Your task to perform on an android device: open chrome and create a bookmark for the current page Image 0: 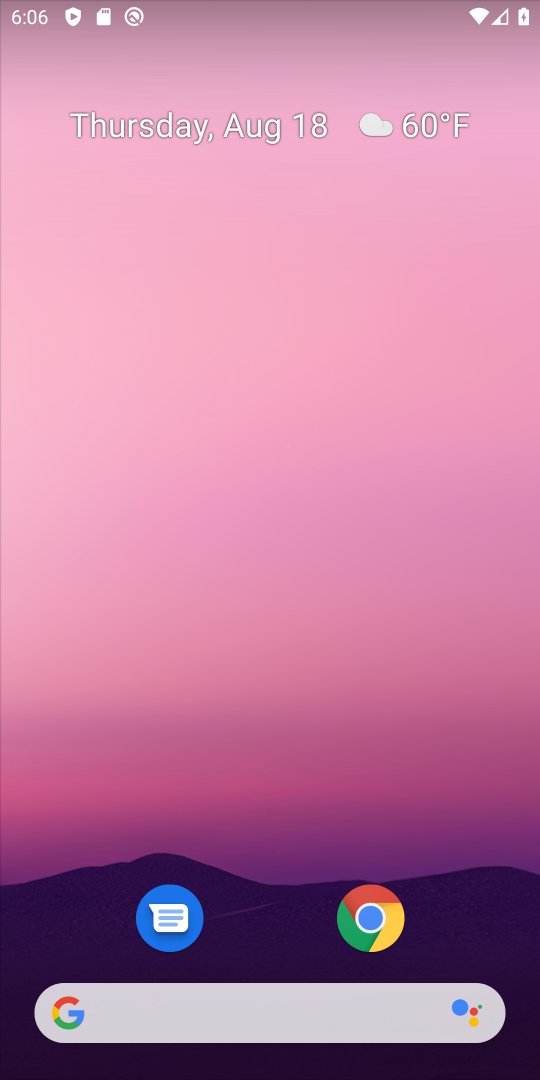
Step 0: click (374, 909)
Your task to perform on an android device: open chrome and create a bookmark for the current page Image 1: 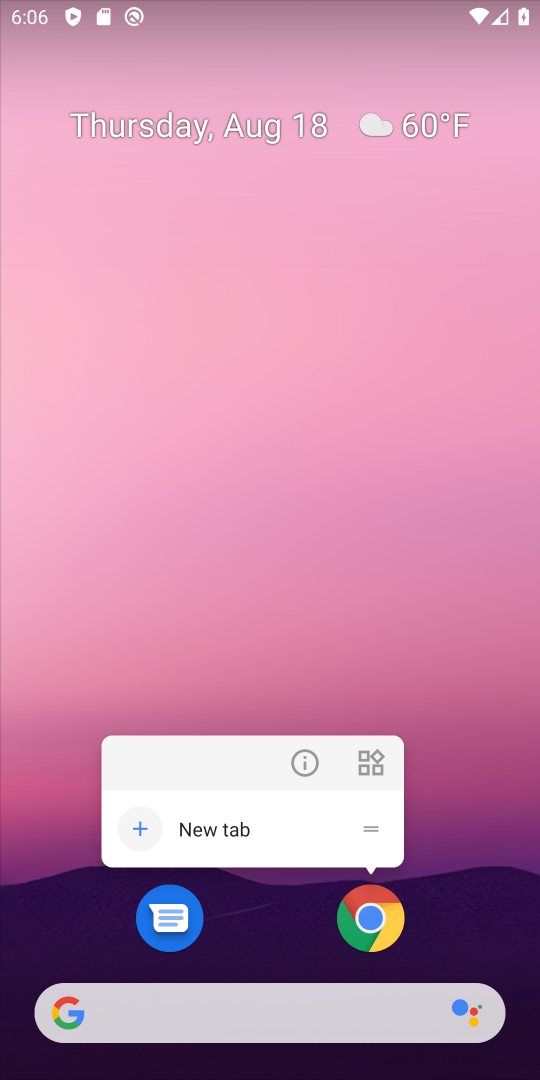
Step 1: click (374, 909)
Your task to perform on an android device: open chrome and create a bookmark for the current page Image 2: 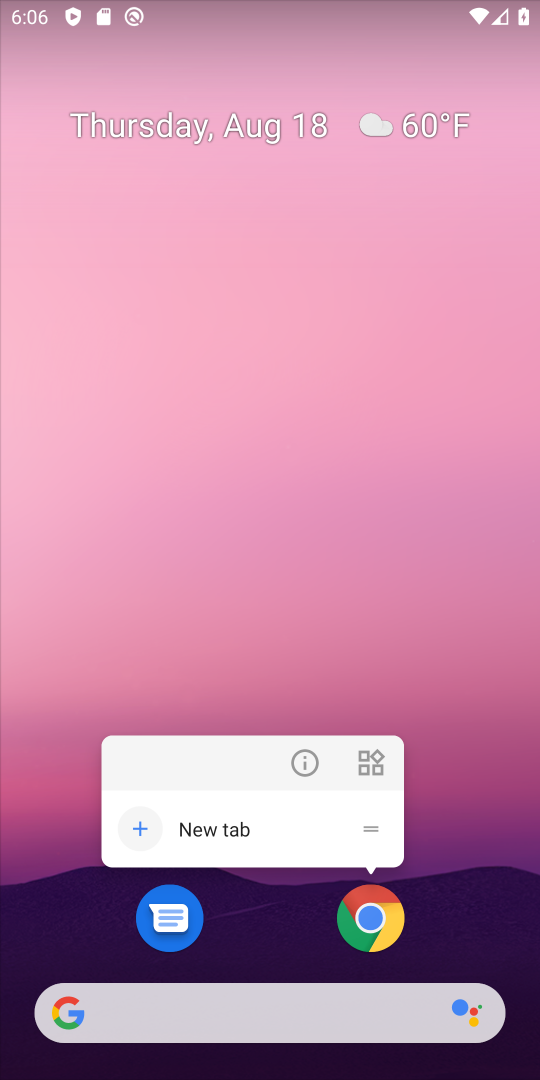
Step 2: click (368, 926)
Your task to perform on an android device: open chrome and create a bookmark for the current page Image 3: 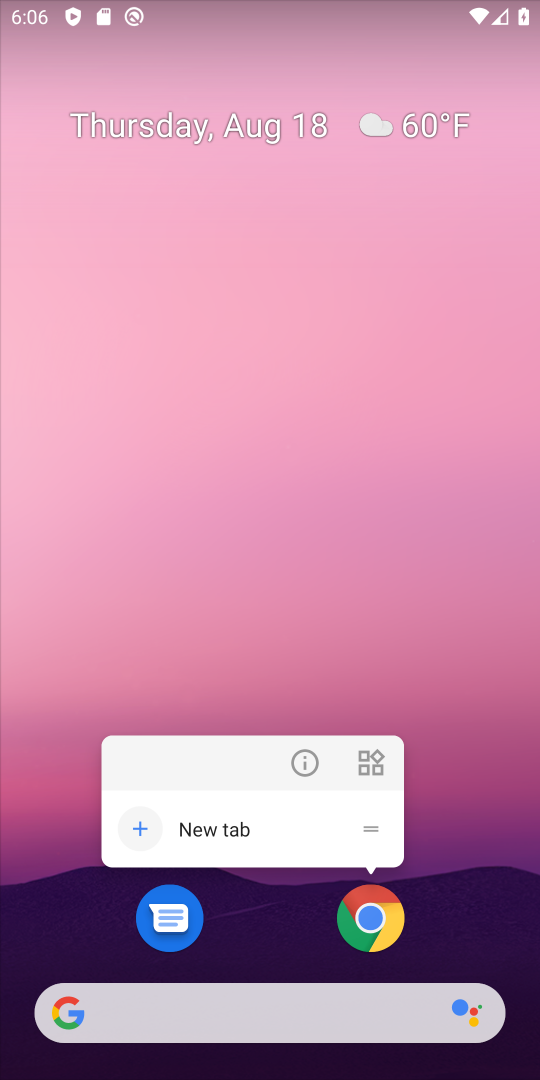
Step 3: click (368, 926)
Your task to perform on an android device: open chrome and create a bookmark for the current page Image 4: 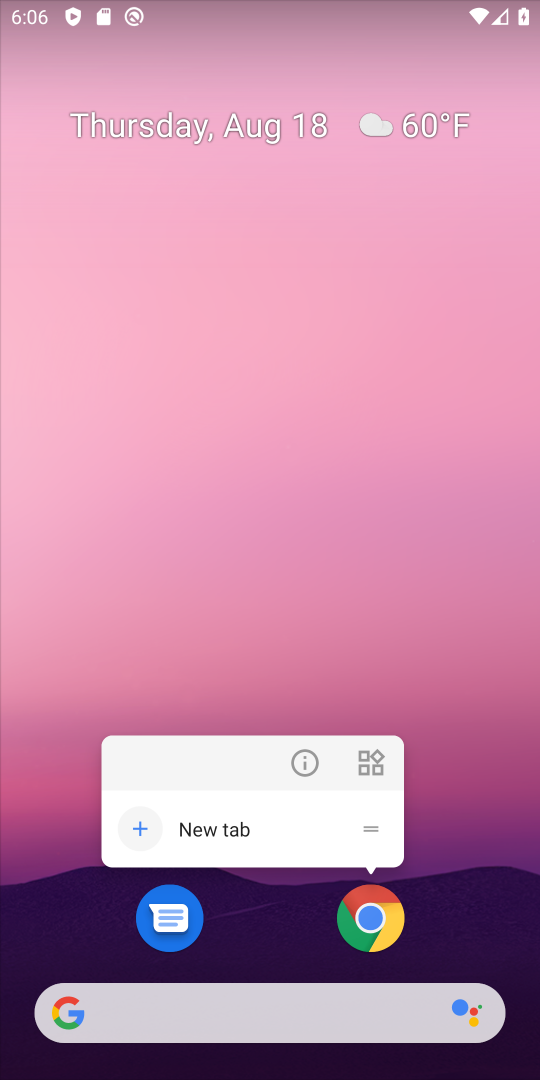
Step 4: click (368, 926)
Your task to perform on an android device: open chrome and create a bookmark for the current page Image 5: 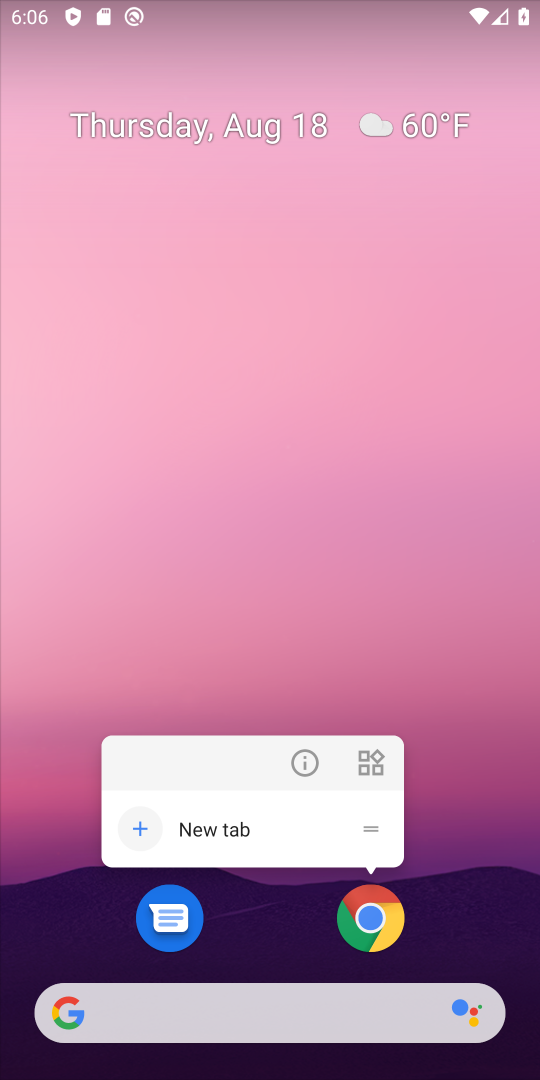
Step 5: click (393, 954)
Your task to perform on an android device: open chrome and create a bookmark for the current page Image 6: 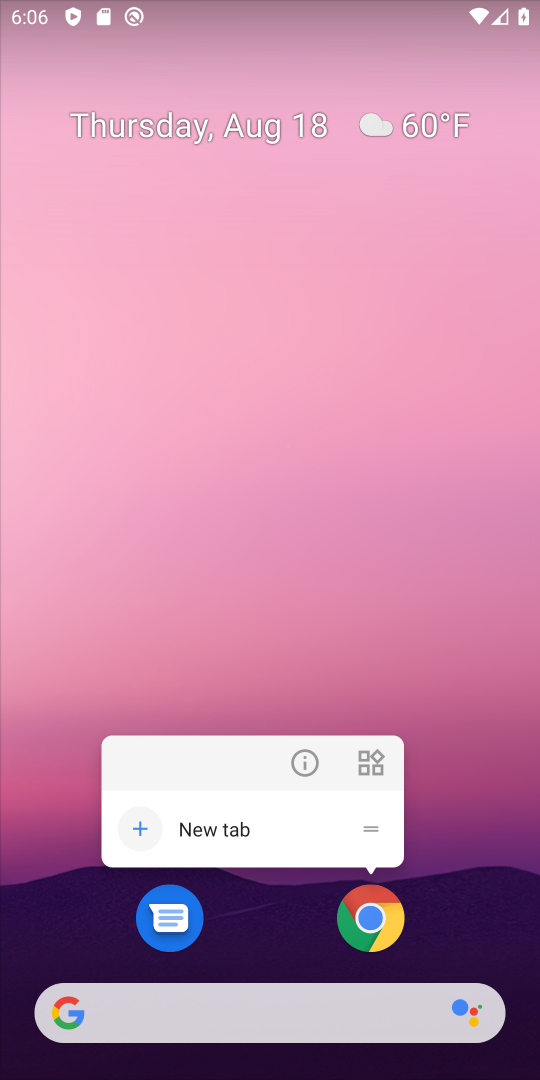
Step 6: click (363, 923)
Your task to perform on an android device: open chrome and create a bookmark for the current page Image 7: 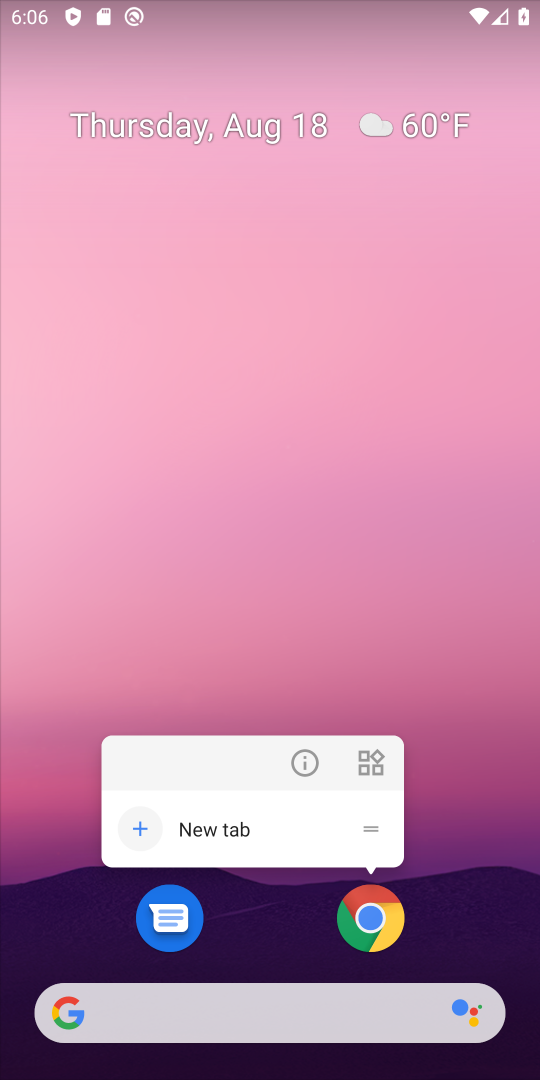
Step 7: click (363, 923)
Your task to perform on an android device: open chrome and create a bookmark for the current page Image 8: 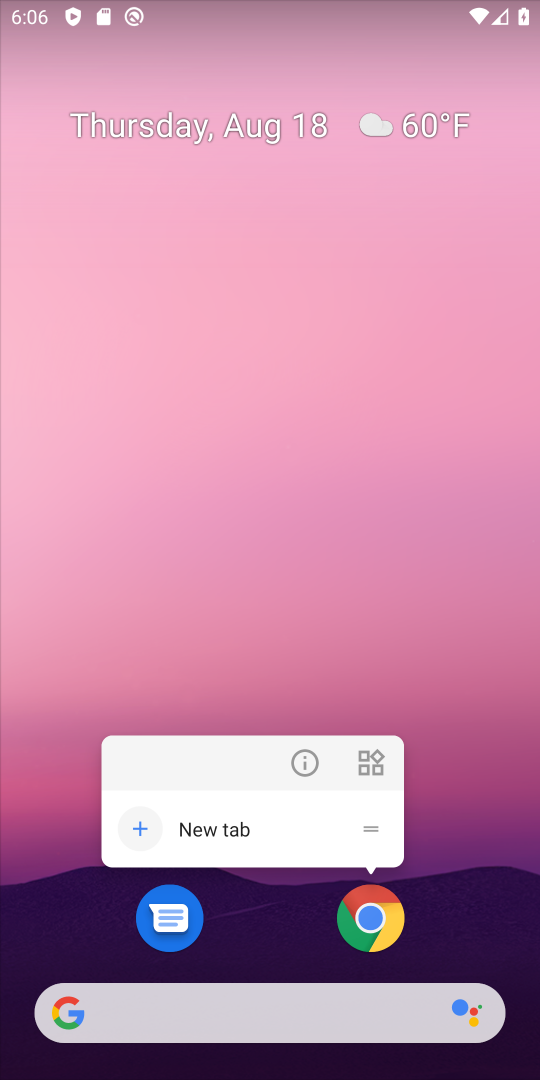
Step 8: click (245, 496)
Your task to perform on an android device: open chrome and create a bookmark for the current page Image 9: 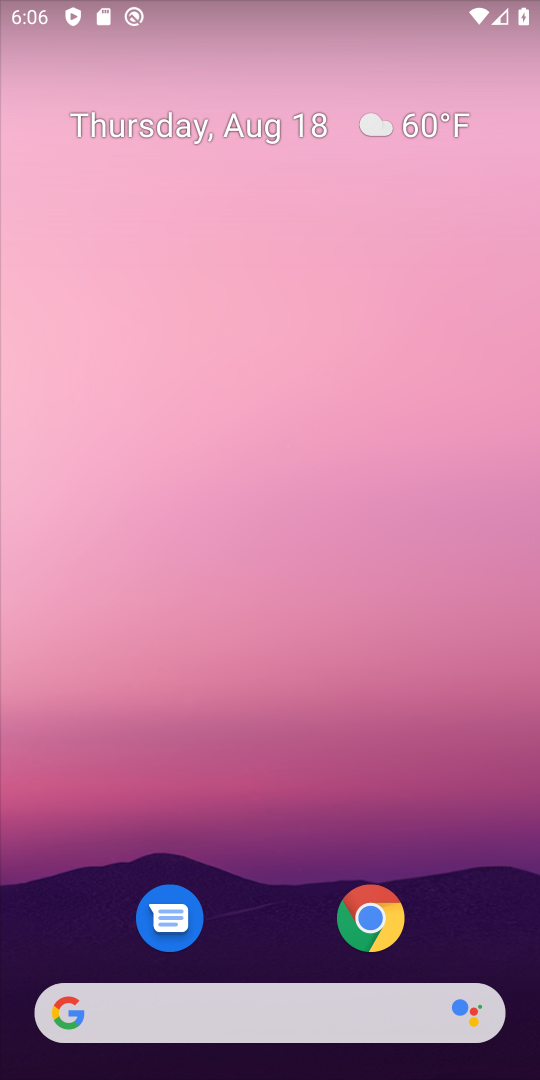
Step 9: click (368, 916)
Your task to perform on an android device: open chrome and create a bookmark for the current page Image 10: 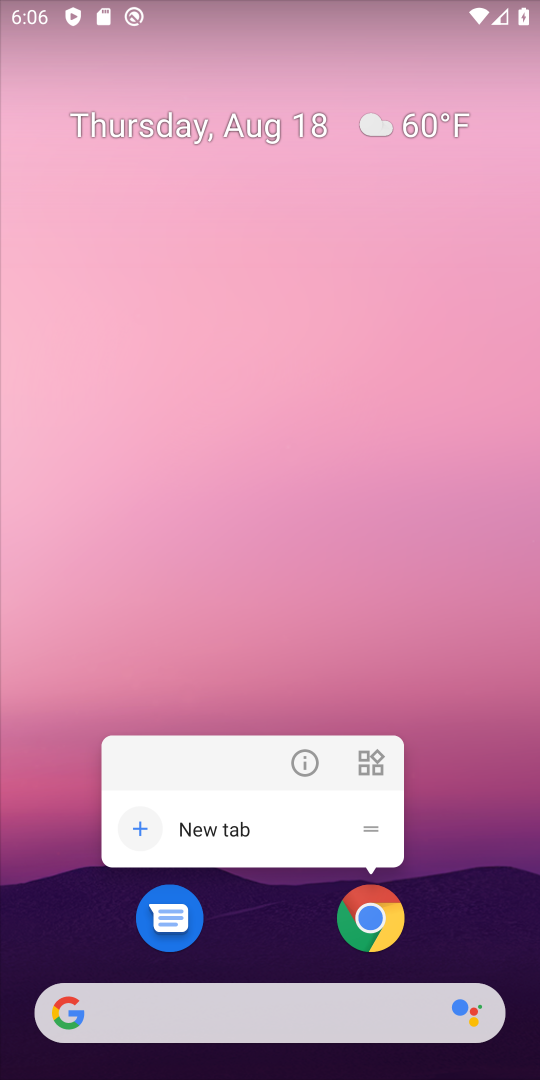
Step 10: click (368, 916)
Your task to perform on an android device: open chrome and create a bookmark for the current page Image 11: 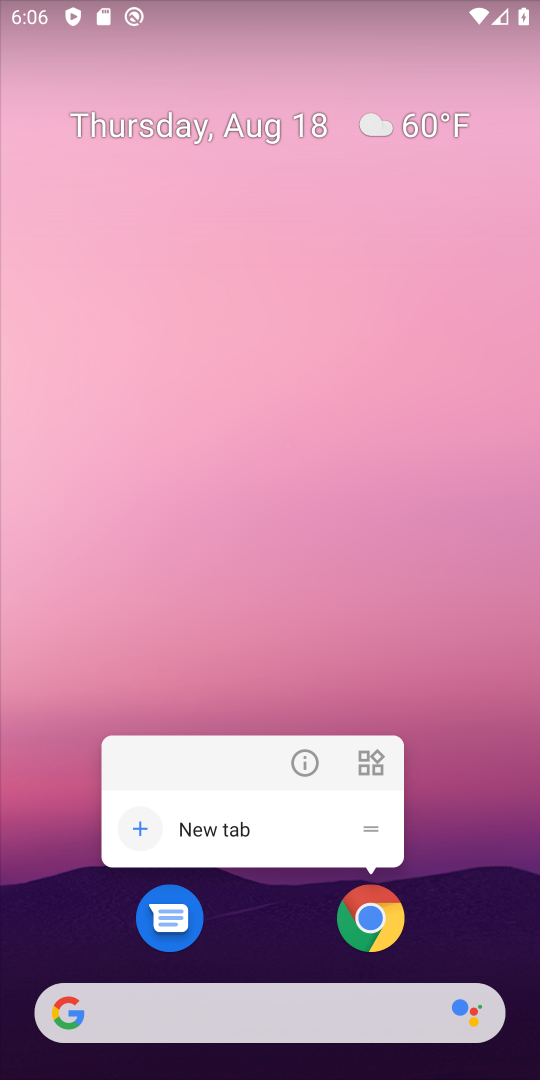
Step 11: click (368, 916)
Your task to perform on an android device: open chrome and create a bookmark for the current page Image 12: 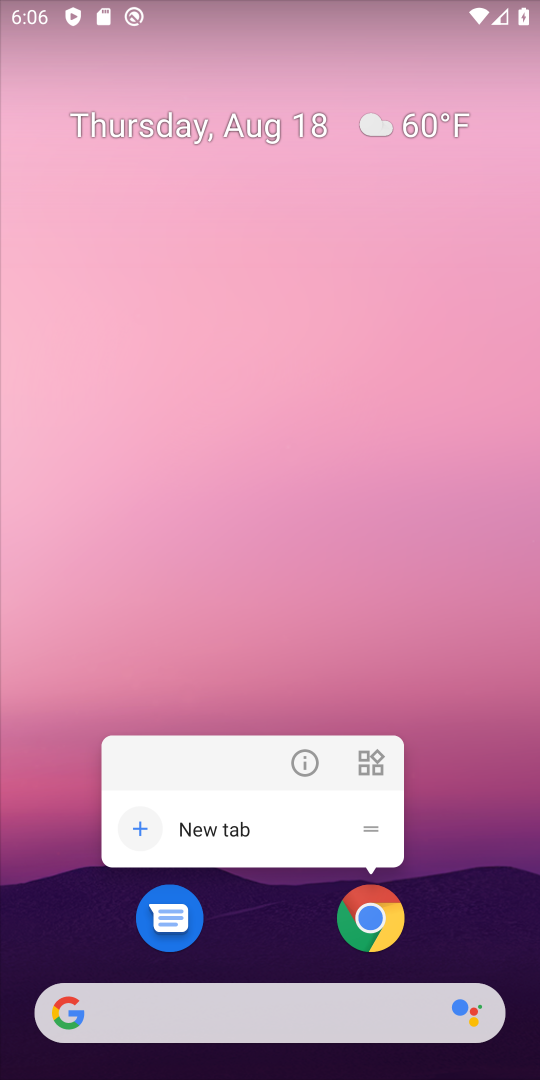
Step 12: click (368, 916)
Your task to perform on an android device: open chrome and create a bookmark for the current page Image 13: 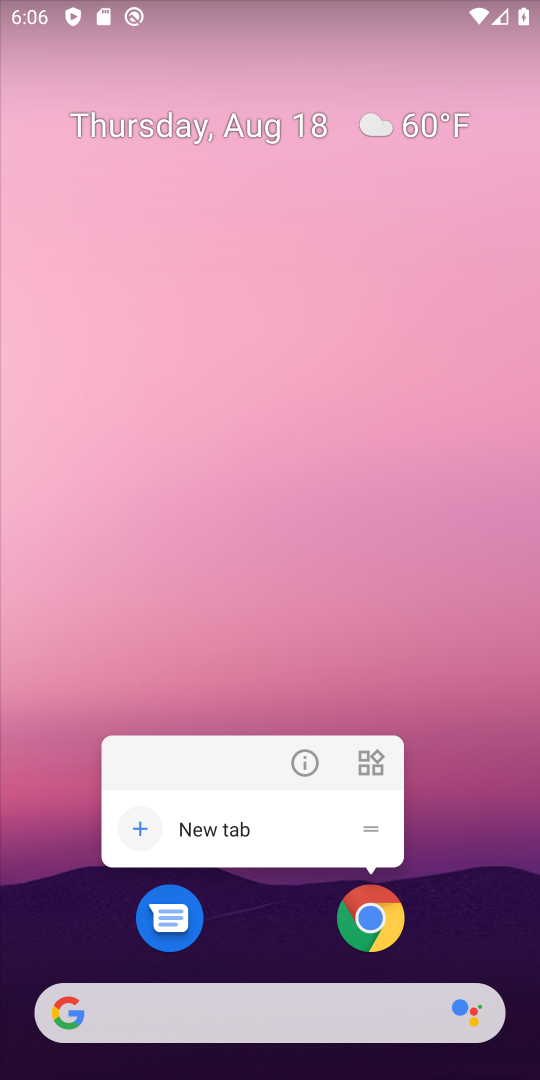
Step 13: click (376, 921)
Your task to perform on an android device: open chrome and create a bookmark for the current page Image 14: 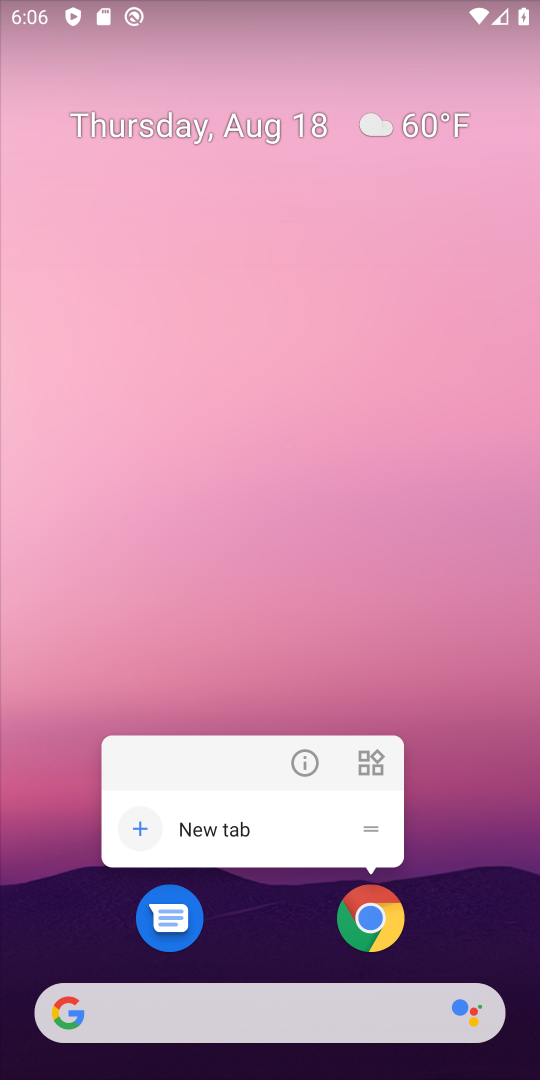
Step 14: click (376, 921)
Your task to perform on an android device: open chrome and create a bookmark for the current page Image 15: 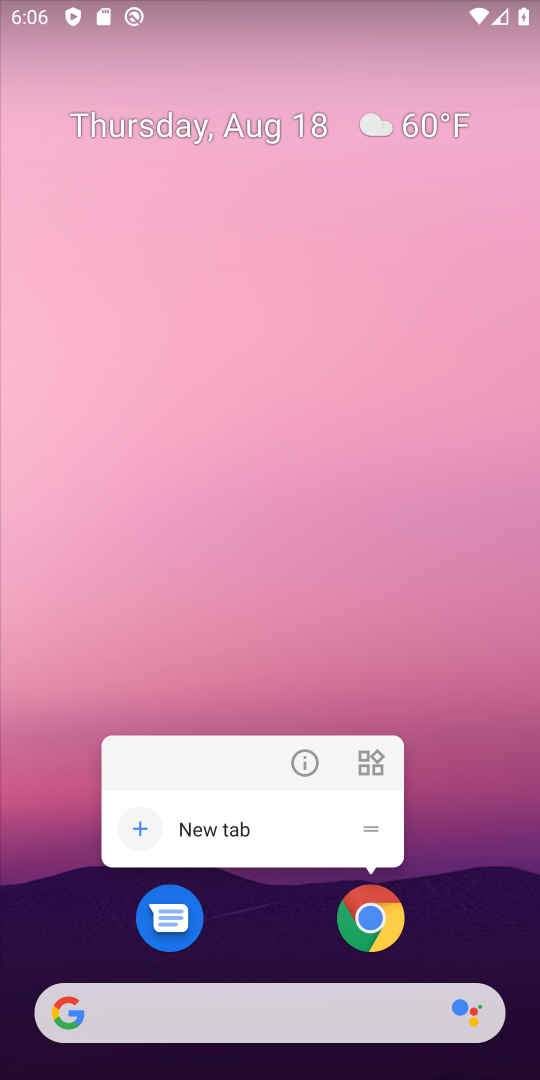
Step 15: click (376, 921)
Your task to perform on an android device: open chrome and create a bookmark for the current page Image 16: 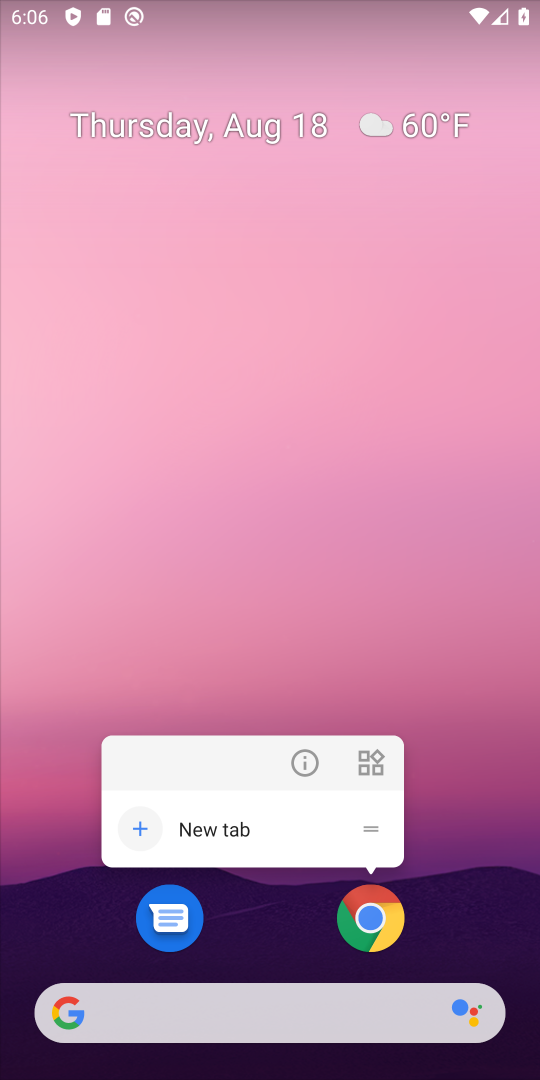
Step 16: click (368, 930)
Your task to perform on an android device: open chrome and create a bookmark for the current page Image 17: 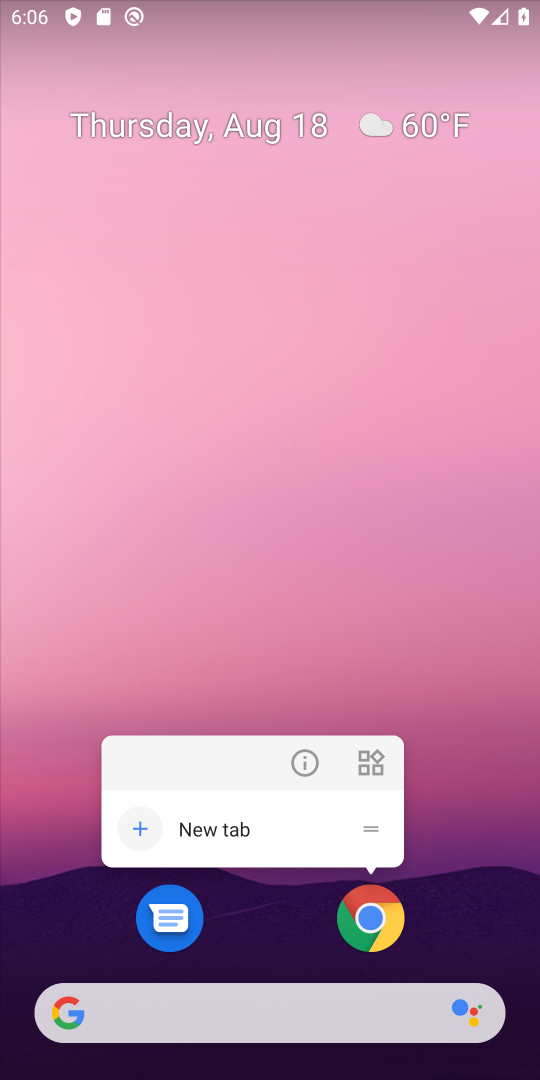
Step 17: click (368, 930)
Your task to perform on an android device: open chrome and create a bookmark for the current page Image 18: 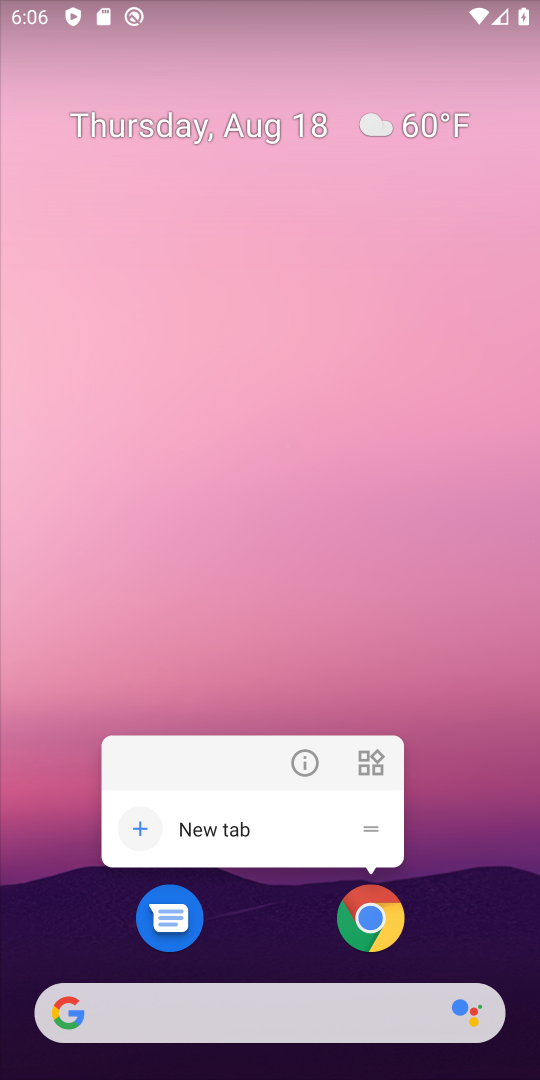
Step 18: click (364, 909)
Your task to perform on an android device: open chrome and create a bookmark for the current page Image 19: 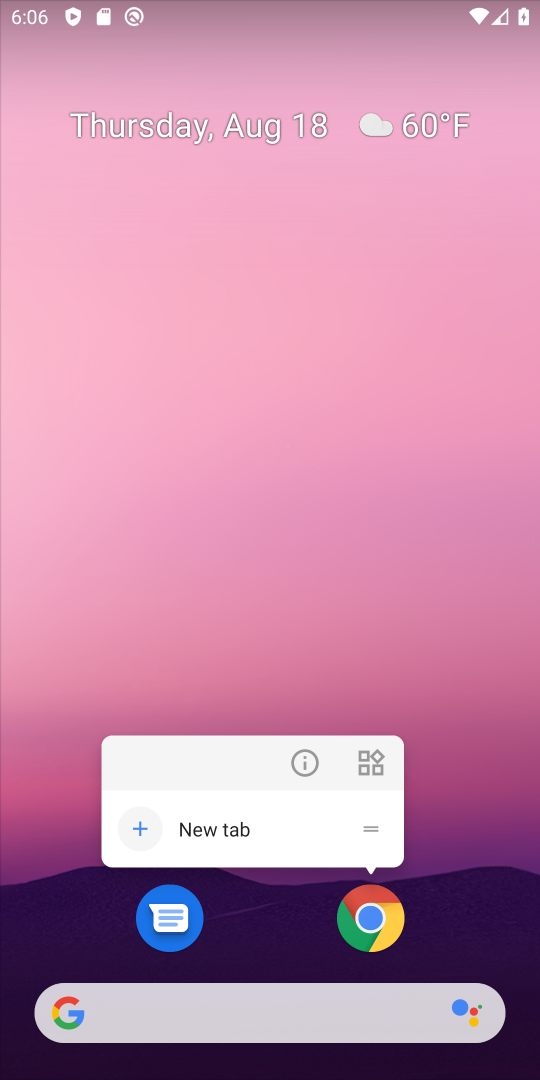
Step 19: click (364, 909)
Your task to perform on an android device: open chrome and create a bookmark for the current page Image 20: 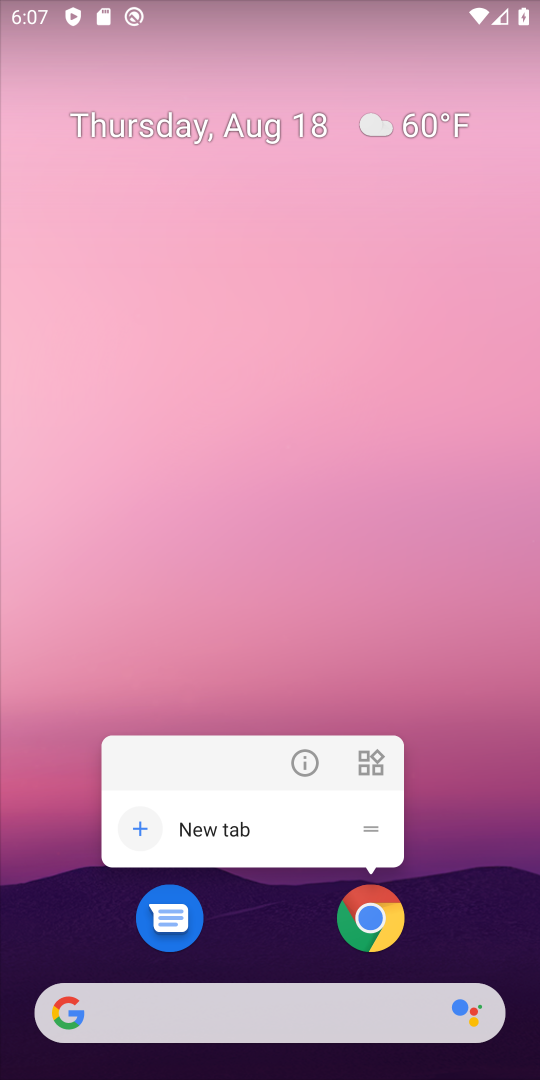
Step 20: click (371, 923)
Your task to perform on an android device: open chrome and create a bookmark for the current page Image 21: 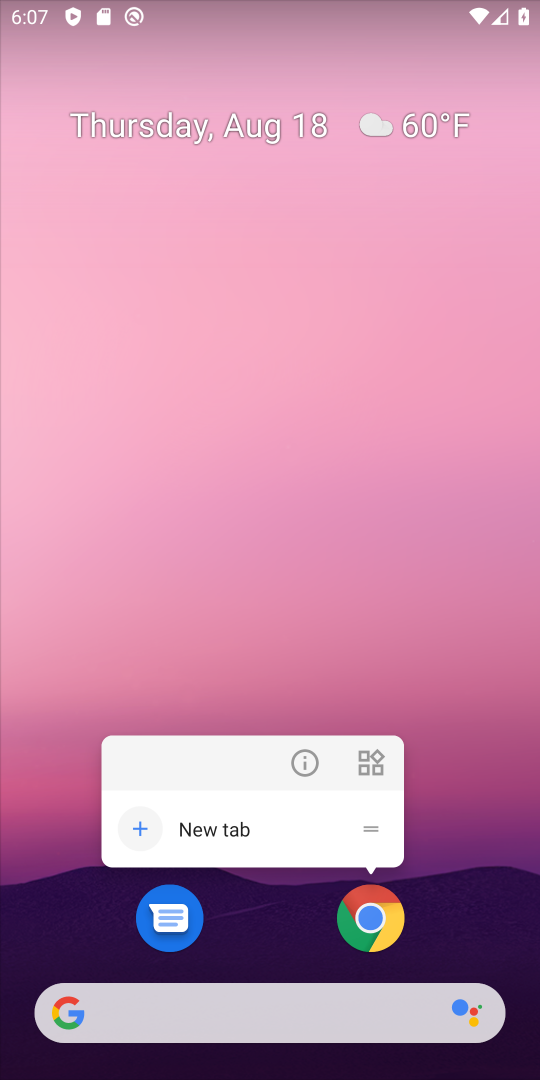
Step 21: click (362, 905)
Your task to perform on an android device: open chrome and create a bookmark for the current page Image 22: 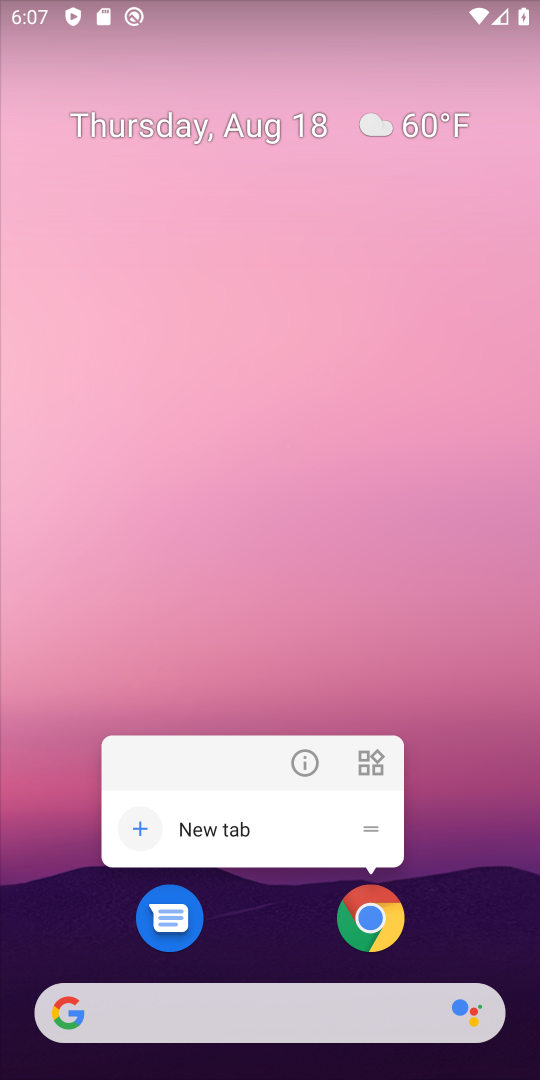
Step 22: click (360, 923)
Your task to perform on an android device: open chrome and create a bookmark for the current page Image 23: 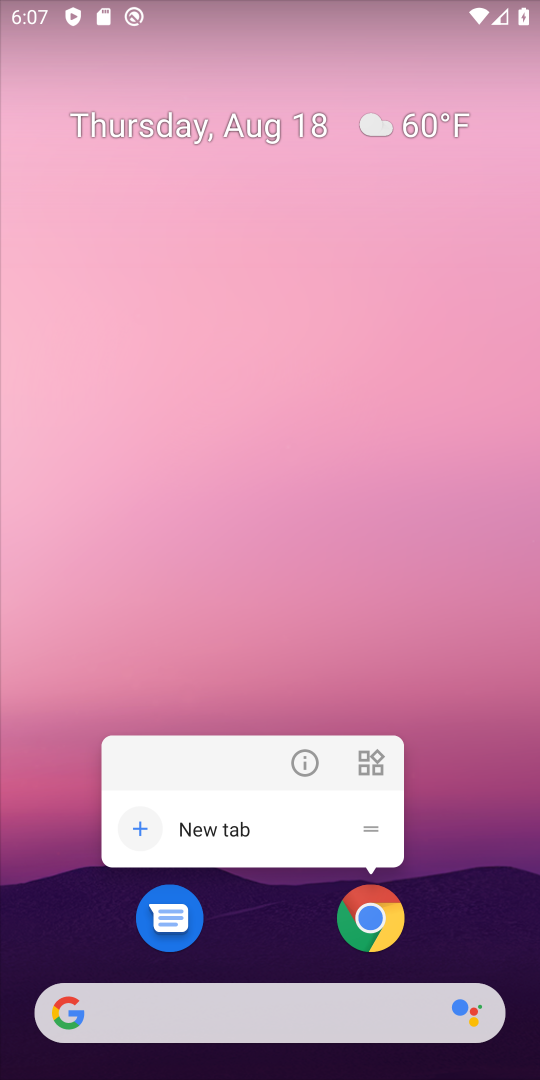
Step 23: click (360, 923)
Your task to perform on an android device: open chrome and create a bookmark for the current page Image 24: 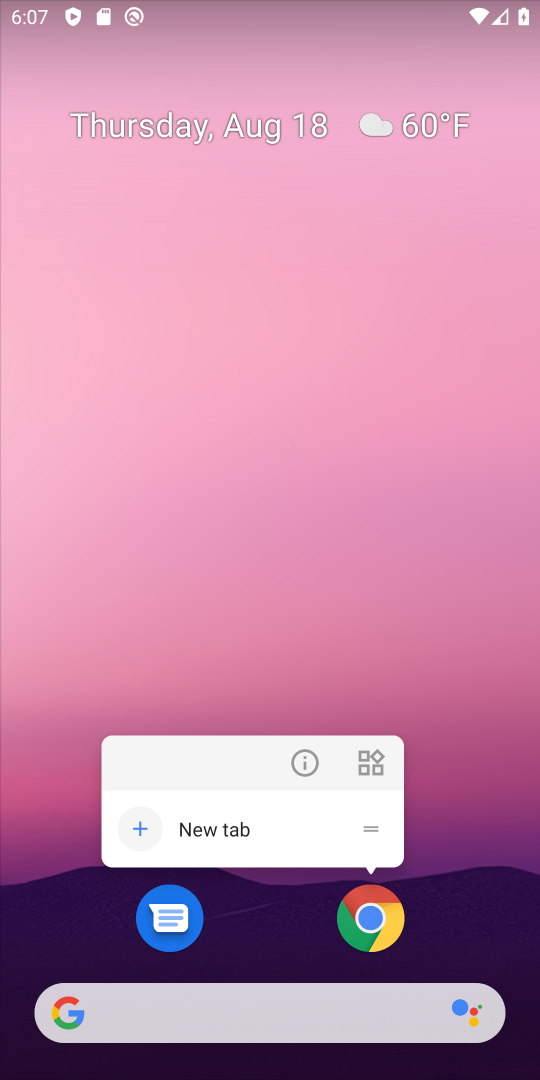
Step 24: click (357, 916)
Your task to perform on an android device: open chrome and create a bookmark for the current page Image 25: 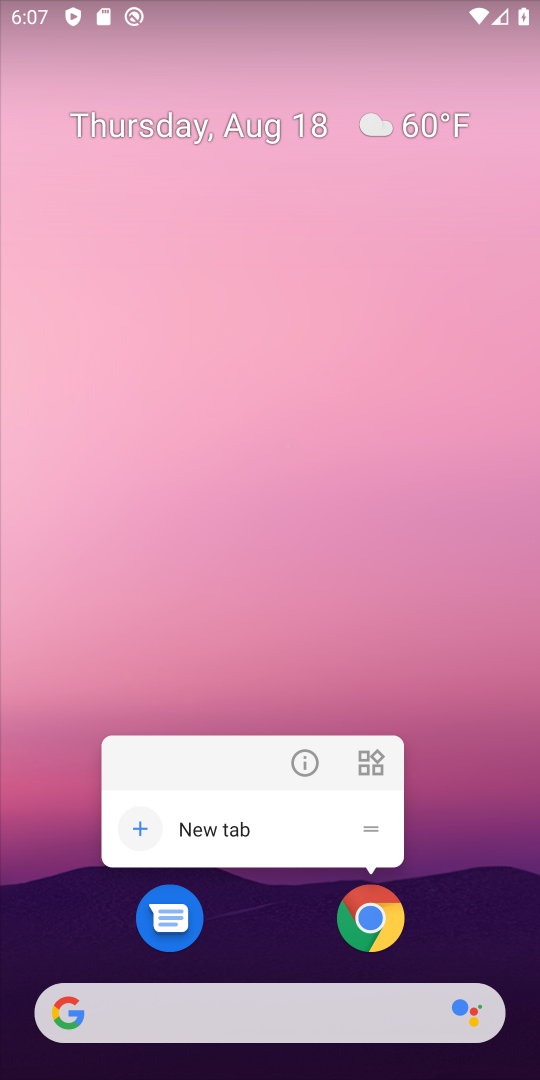
Step 25: click (368, 924)
Your task to perform on an android device: open chrome and create a bookmark for the current page Image 26: 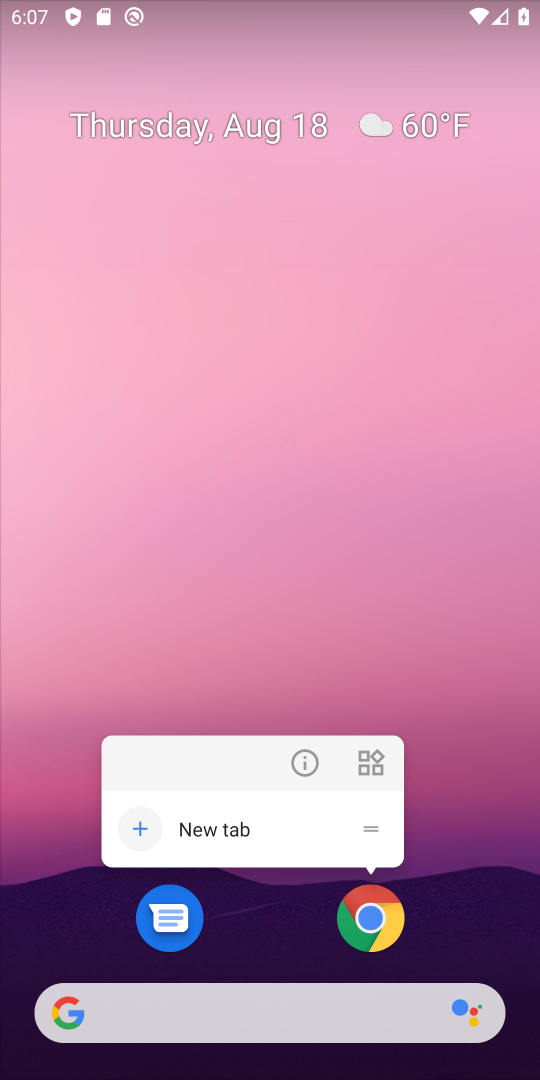
Step 26: click (362, 910)
Your task to perform on an android device: open chrome and create a bookmark for the current page Image 27: 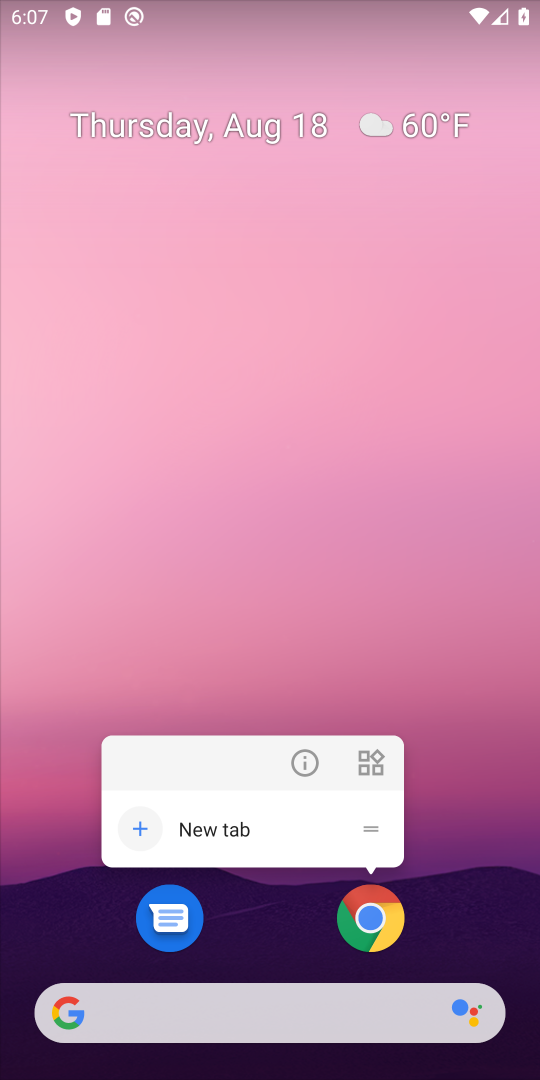
Step 27: click (371, 917)
Your task to perform on an android device: open chrome and create a bookmark for the current page Image 28: 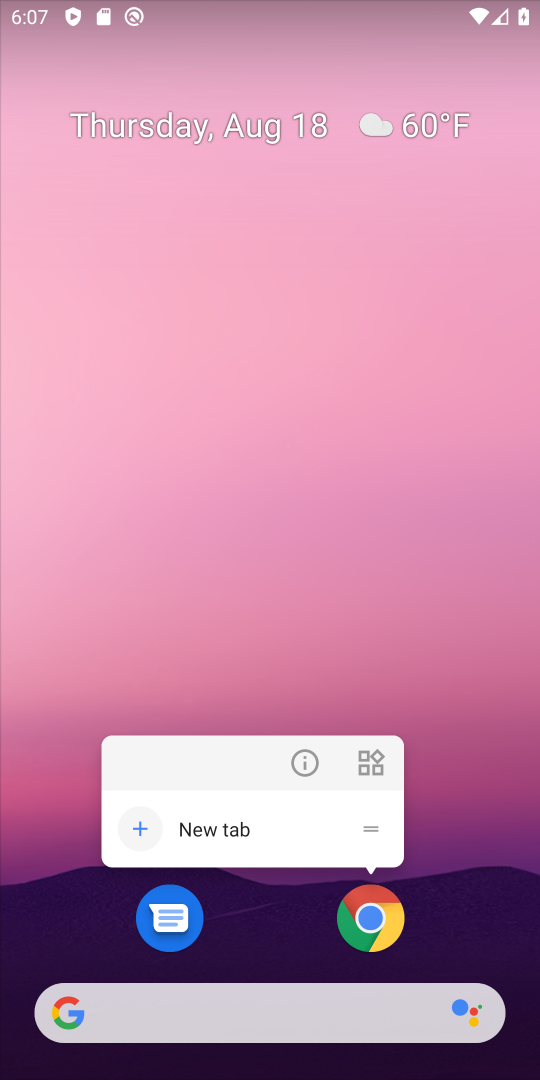
Step 28: click (353, 922)
Your task to perform on an android device: open chrome and create a bookmark for the current page Image 29: 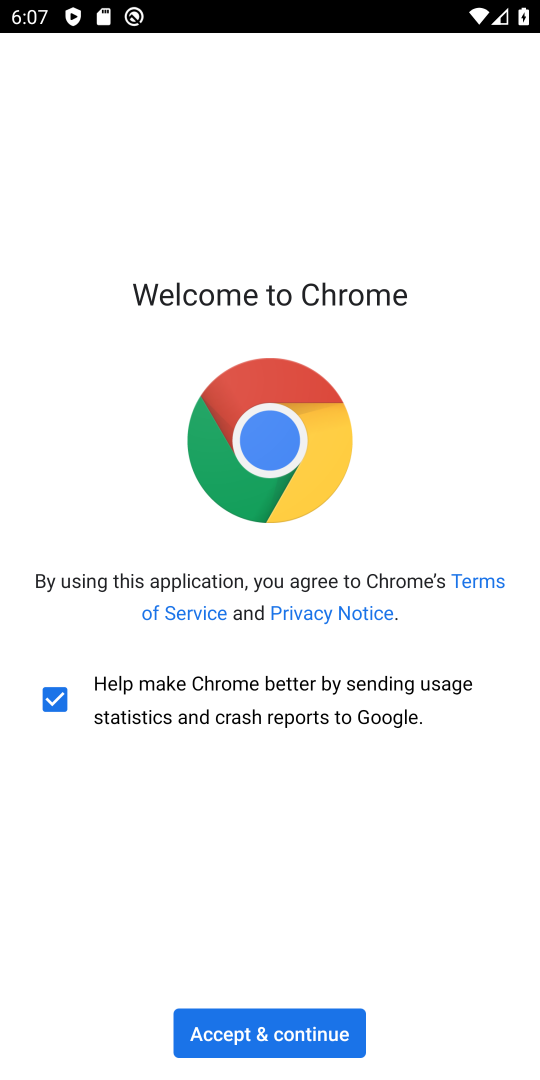
Step 29: click (259, 1052)
Your task to perform on an android device: open chrome and create a bookmark for the current page Image 30: 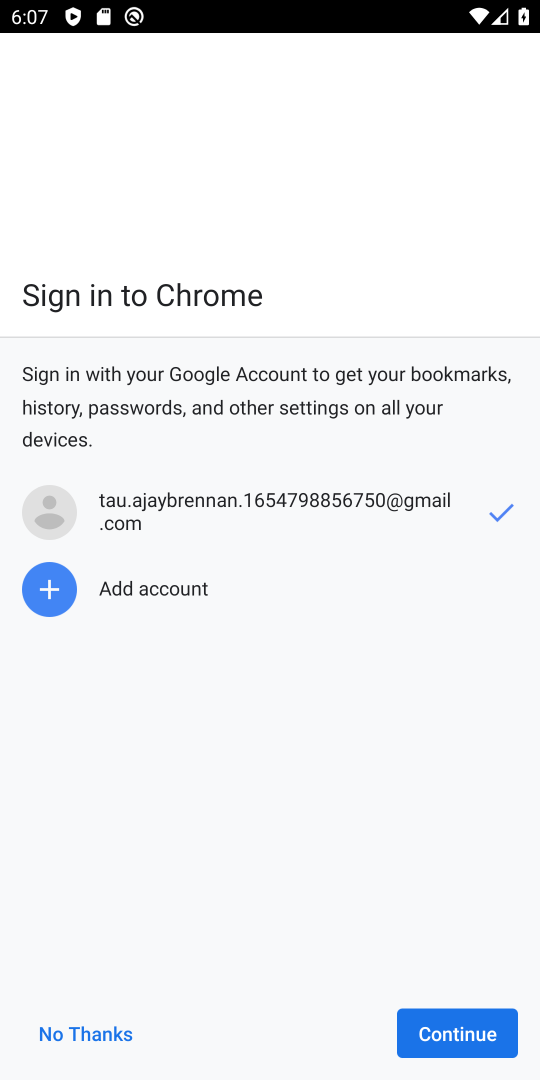
Step 30: click (434, 1052)
Your task to perform on an android device: open chrome and create a bookmark for the current page Image 31: 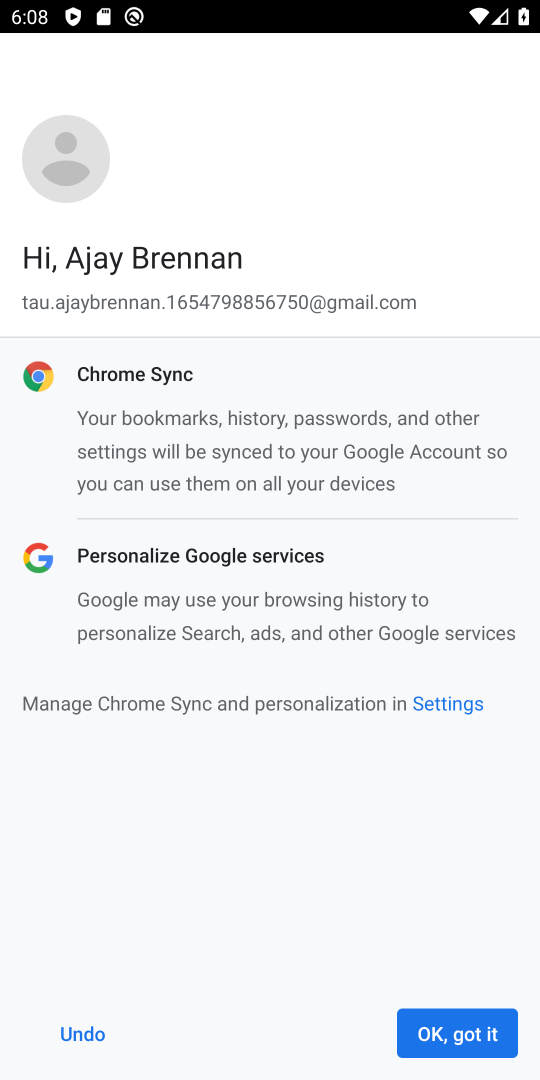
Step 31: click (452, 1037)
Your task to perform on an android device: open chrome and create a bookmark for the current page Image 32: 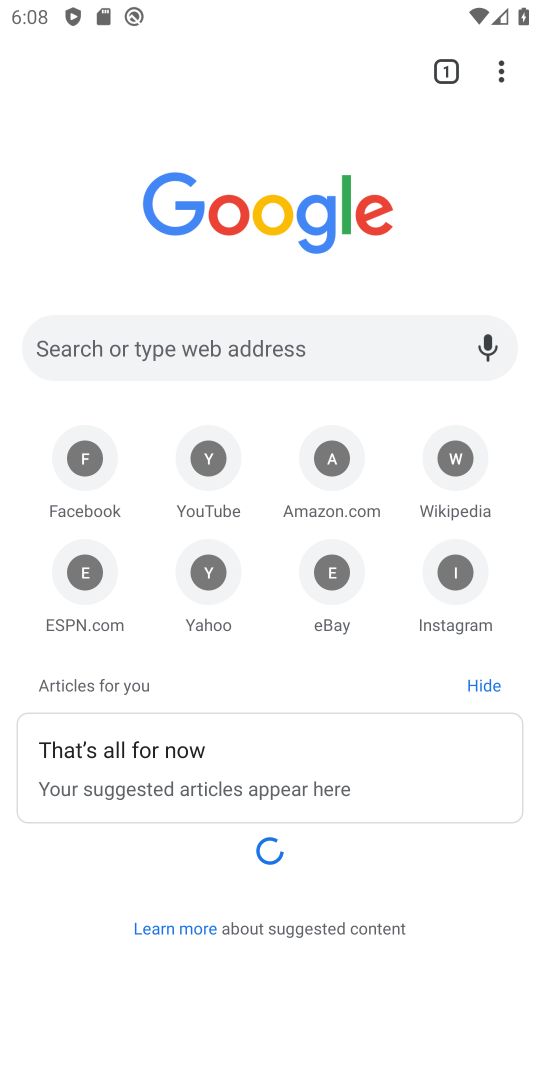
Step 32: task complete